Your task to perform on an android device: Clear the shopping cart on walmart. Search for jbl flip 4 on walmart, select the first entry, and add it to the cart. Image 0: 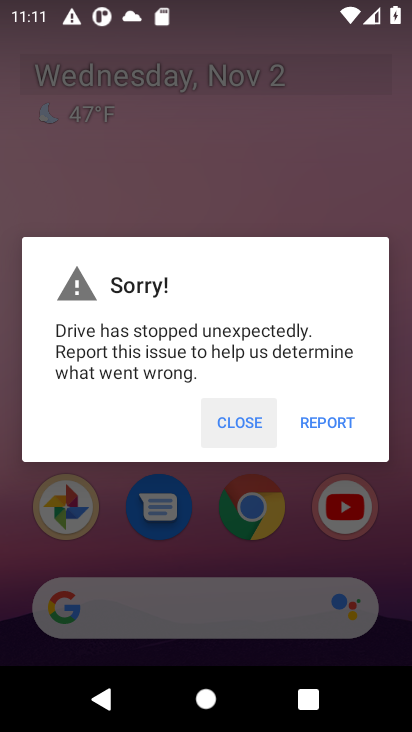
Step 0: click (156, 616)
Your task to perform on an android device: Clear the shopping cart on walmart. Search for jbl flip 4 on walmart, select the first entry, and add it to the cart. Image 1: 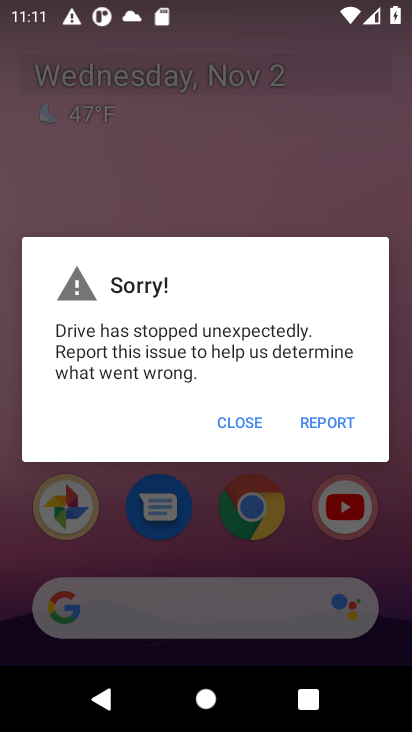
Step 1: click (260, 424)
Your task to perform on an android device: Clear the shopping cart on walmart. Search for jbl flip 4 on walmart, select the first entry, and add it to the cart. Image 2: 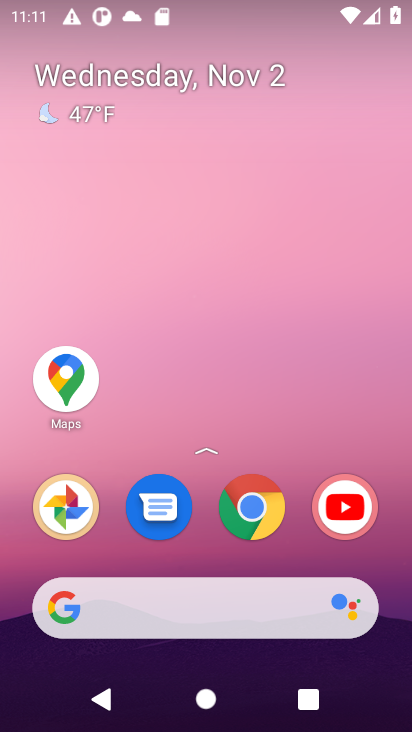
Step 2: type "walmart"
Your task to perform on an android device: Clear the shopping cart on walmart. Search for jbl flip 4 on walmart, select the first entry, and add it to the cart. Image 3: 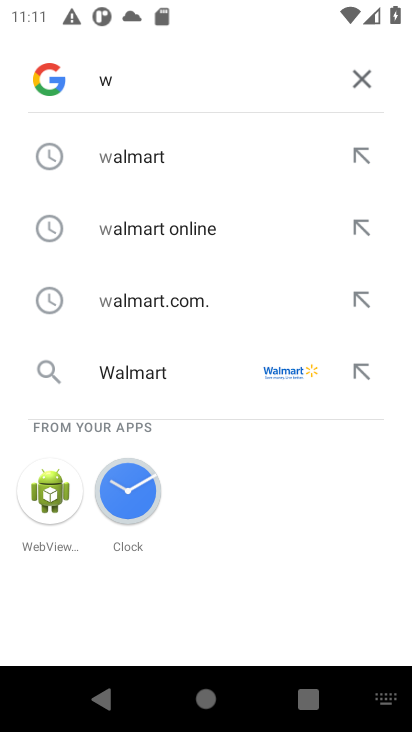
Step 3: click (74, 154)
Your task to perform on an android device: Clear the shopping cart on walmart. Search for jbl flip 4 on walmart, select the first entry, and add it to the cart. Image 4: 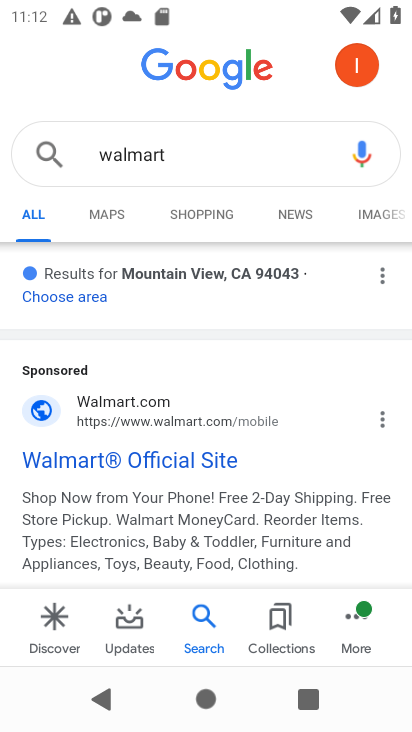
Step 4: click (172, 464)
Your task to perform on an android device: Clear the shopping cart on walmart. Search for jbl flip 4 on walmart, select the first entry, and add it to the cart. Image 5: 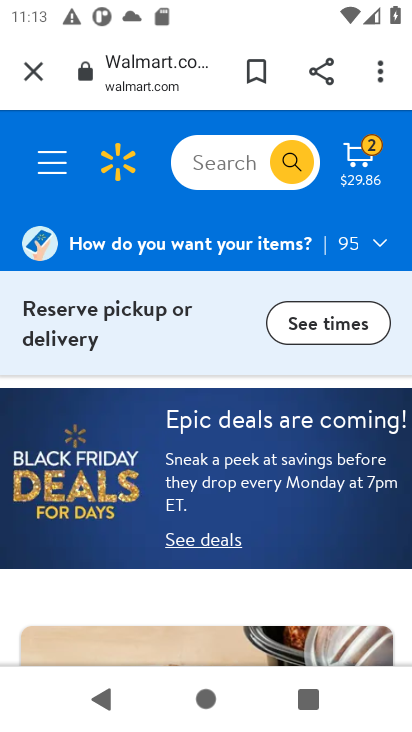
Step 5: click (231, 174)
Your task to perform on an android device: Clear the shopping cart on walmart. Search for jbl flip 4 on walmart, select the first entry, and add it to the cart. Image 6: 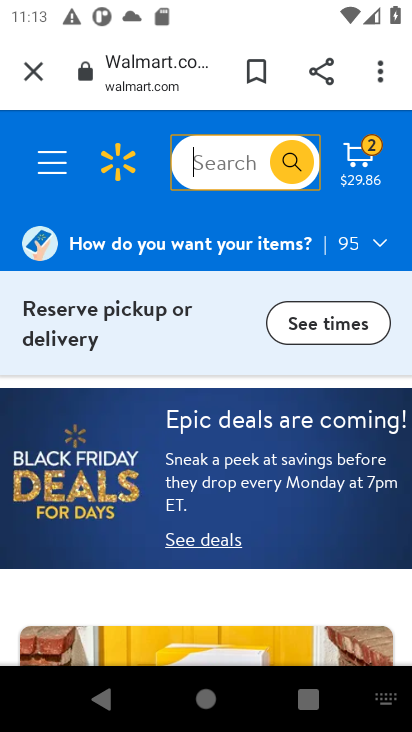
Step 6: type "jbl flip 4"
Your task to perform on an android device: Clear the shopping cart on walmart. Search for jbl flip 4 on walmart, select the first entry, and add it to the cart. Image 7: 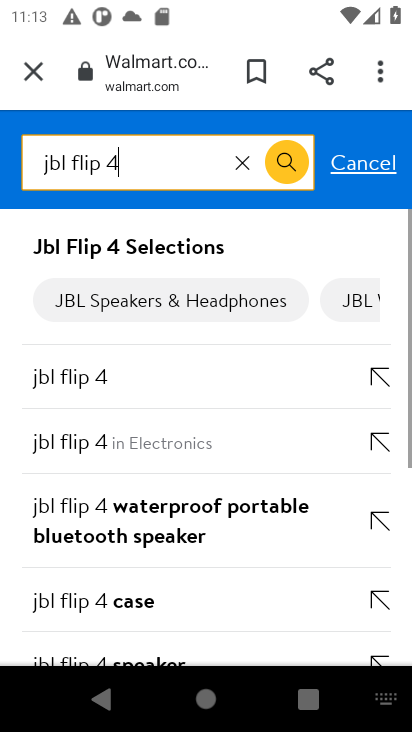
Step 7: click (145, 260)
Your task to perform on an android device: Clear the shopping cart on walmart. Search for jbl flip 4 on walmart, select the first entry, and add it to the cart. Image 8: 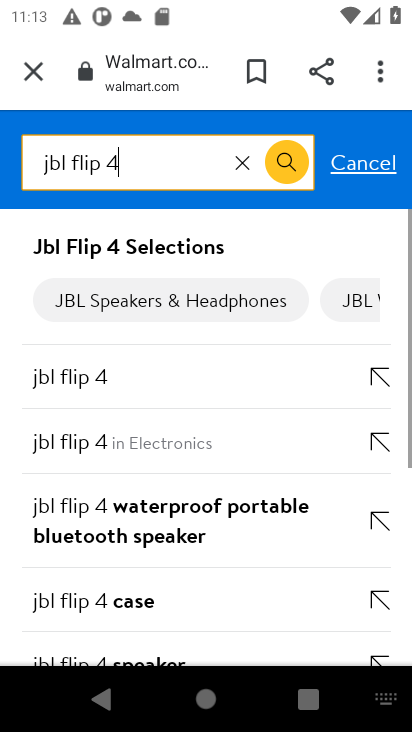
Step 8: task complete